Your task to perform on an android device: turn on showing notifications on the lock screen Image 0: 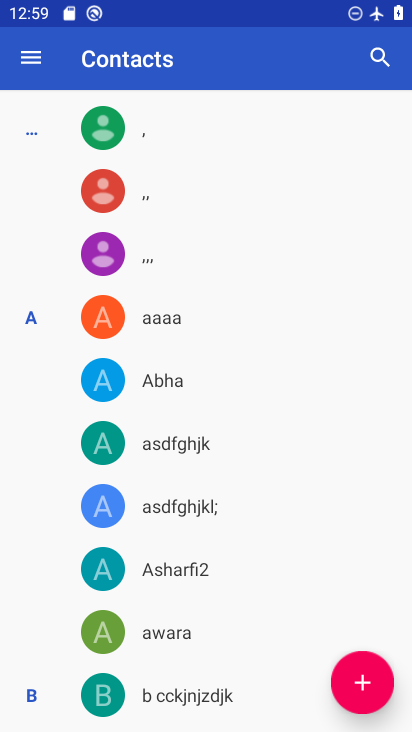
Step 0: press home button
Your task to perform on an android device: turn on showing notifications on the lock screen Image 1: 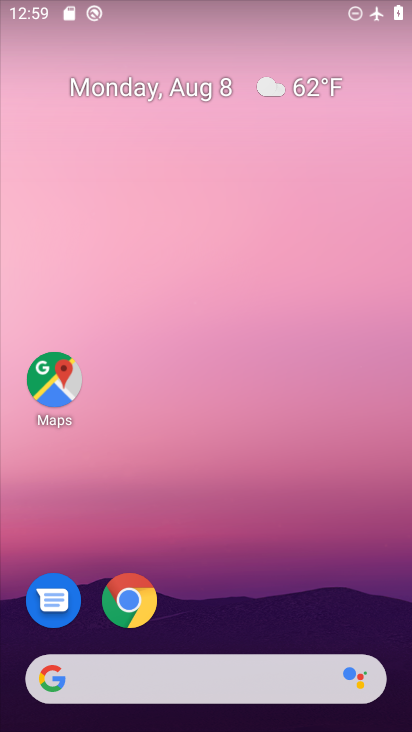
Step 1: drag from (232, 587) to (216, 194)
Your task to perform on an android device: turn on showing notifications on the lock screen Image 2: 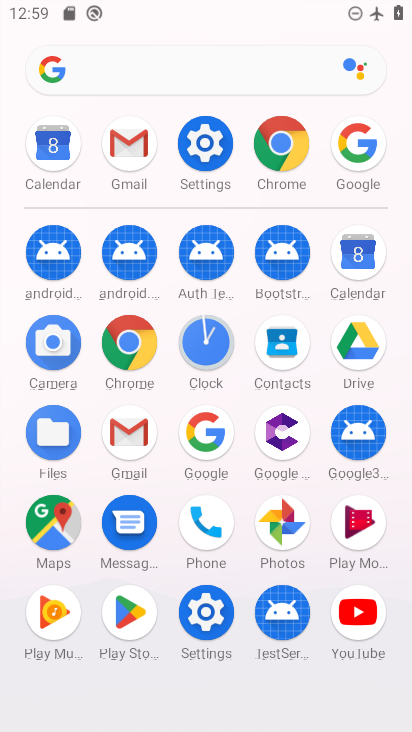
Step 2: click (208, 123)
Your task to perform on an android device: turn on showing notifications on the lock screen Image 3: 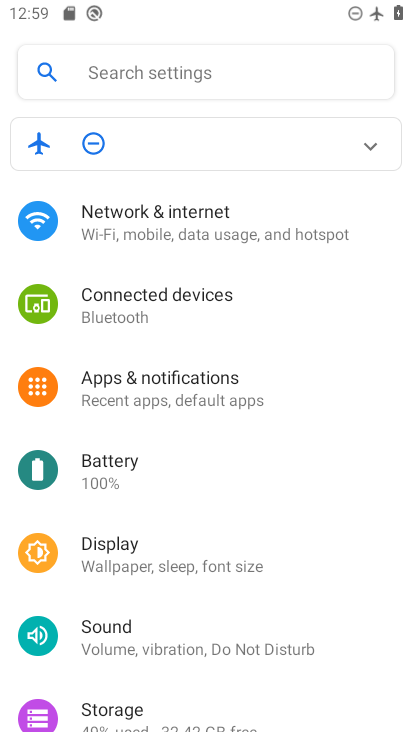
Step 3: click (259, 404)
Your task to perform on an android device: turn on showing notifications on the lock screen Image 4: 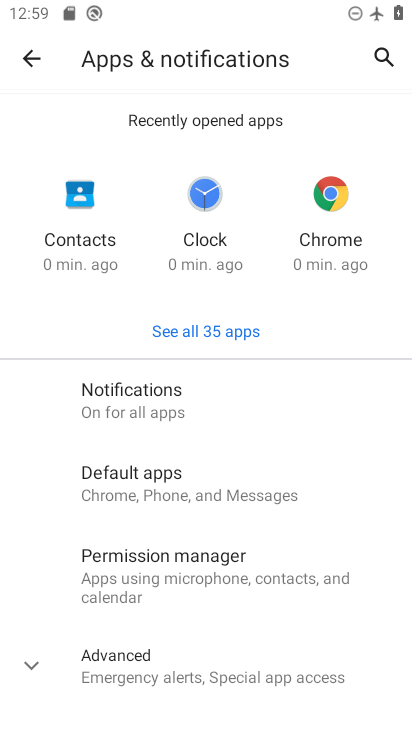
Step 4: click (159, 405)
Your task to perform on an android device: turn on showing notifications on the lock screen Image 5: 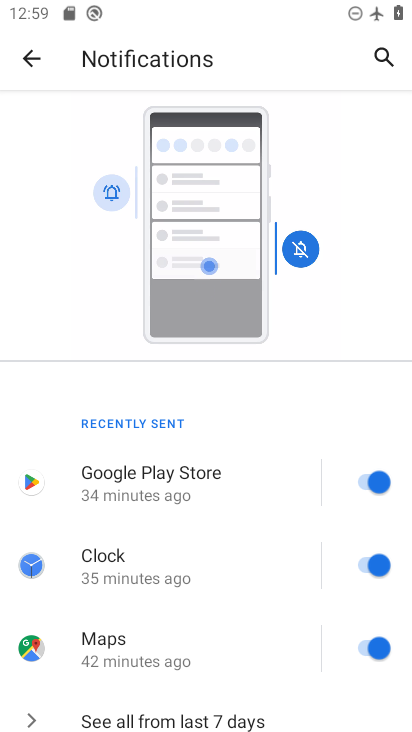
Step 5: drag from (168, 617) to (159, 226)
Your task to perform on an android device: turn on showing notifications on the lock screen Image 6: 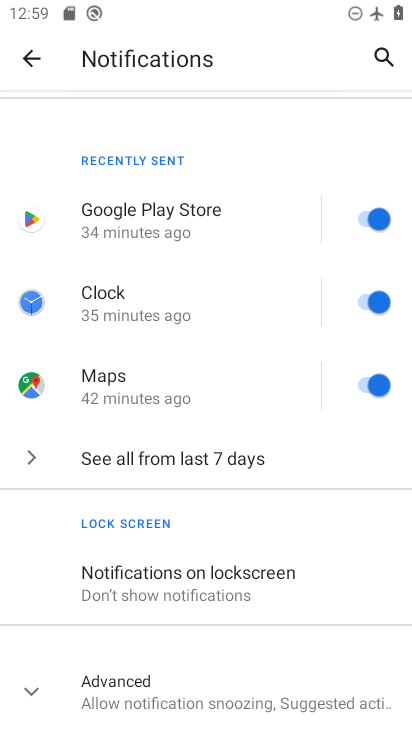
Step 6: click (203, 580)
Your task to perform on an android device: turn on showing notifications on the lock screen Image 7: 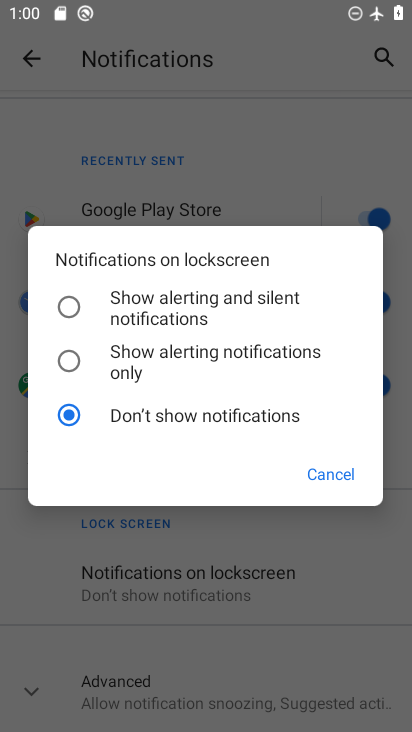
Step 7: click (155, 321)
Your task to perform on an android device: turn on showing notifications on the lock screen Image 8: 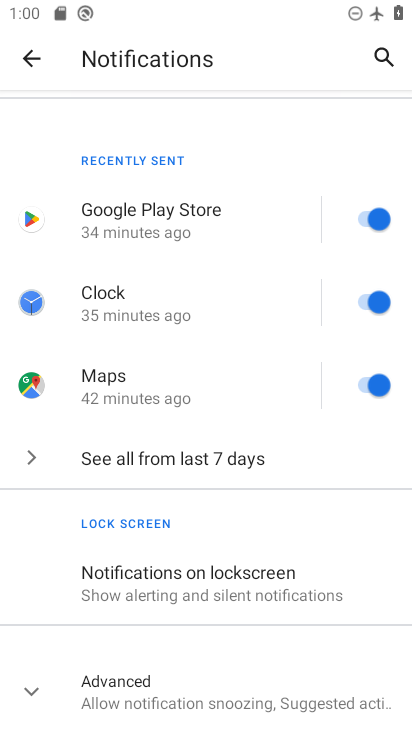
Step 8: task complete